Your task to perform on an android device: open chrome privacy settings Image 0: 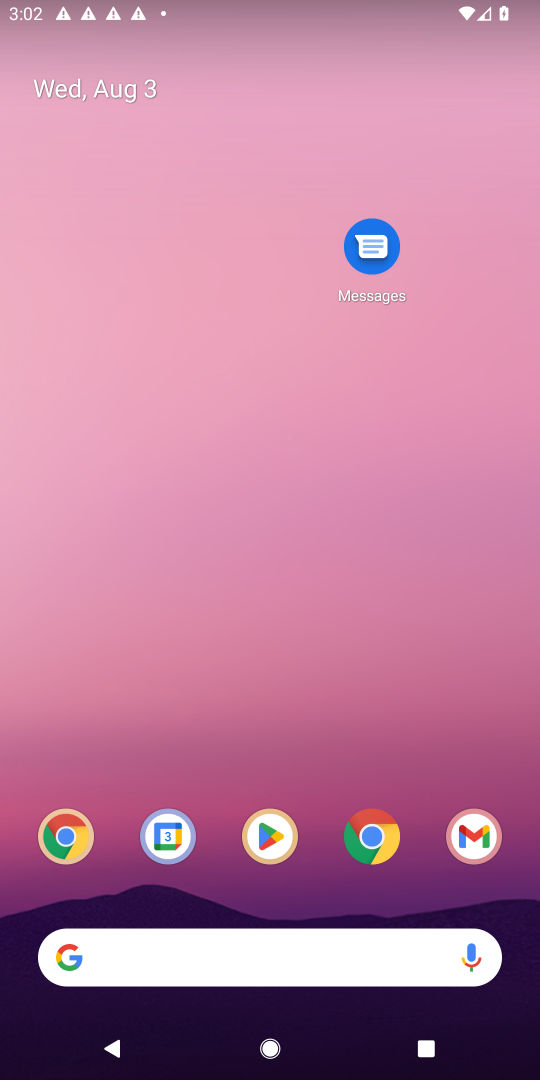
Step 0: click (391, 856)
Your task to perform on an android device: open chrome privacy settings Image 1: 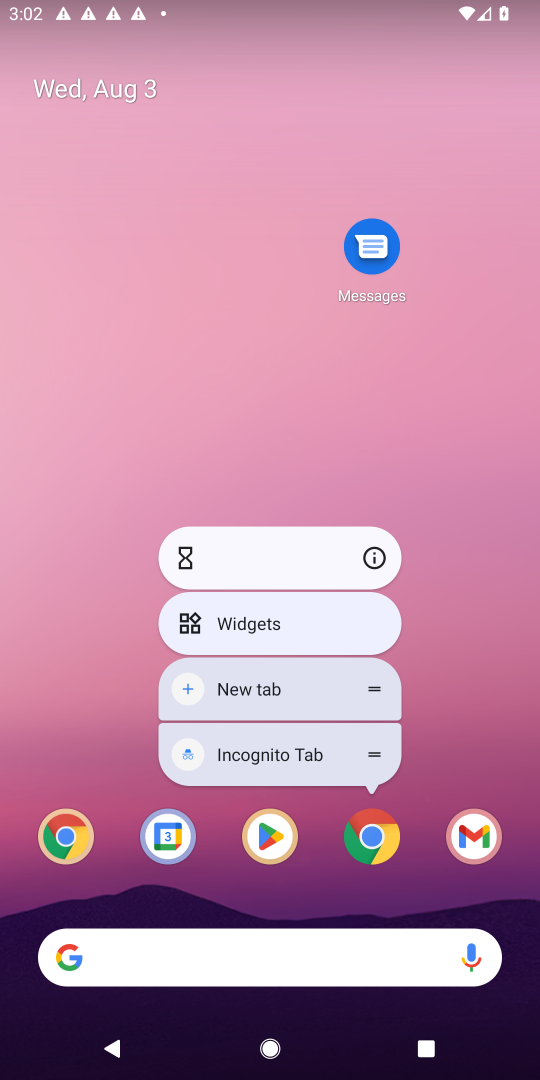
Step 1: click (377, 848)
Your task to perform on an android device: open chrome privacy settings Image 2: 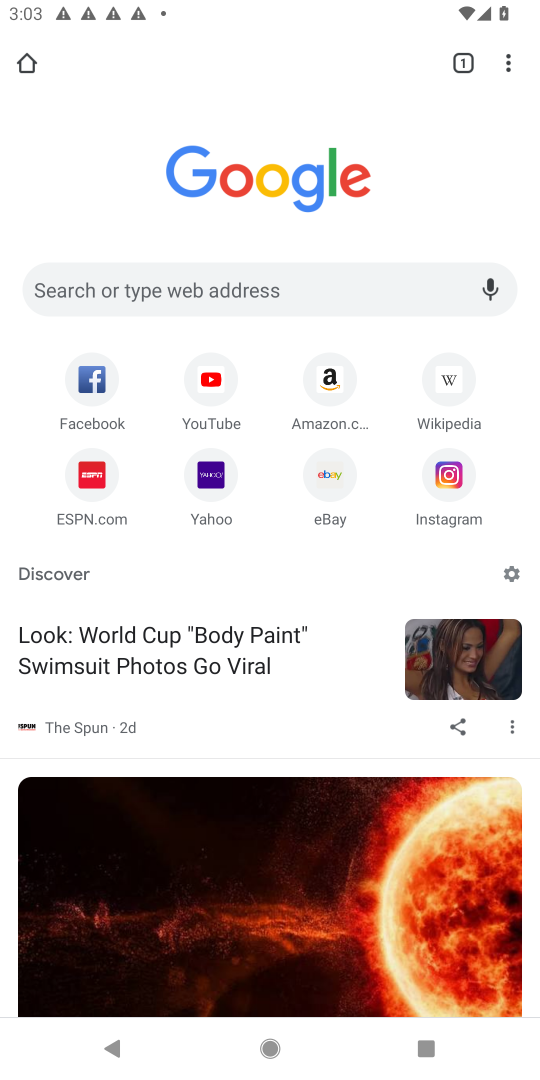
Step 2: click (511, 62)
Your task to perform on an android device: open chrome privacy settings Image 3: 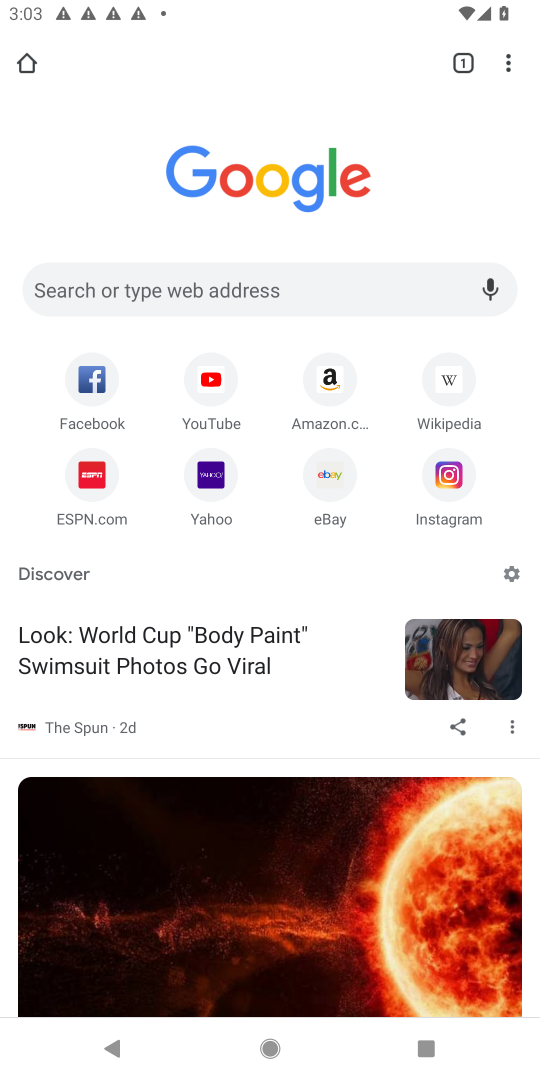
Step 3: click (514, 65)
Your task to perform on an android device: open chrome privacy settings Image 4: 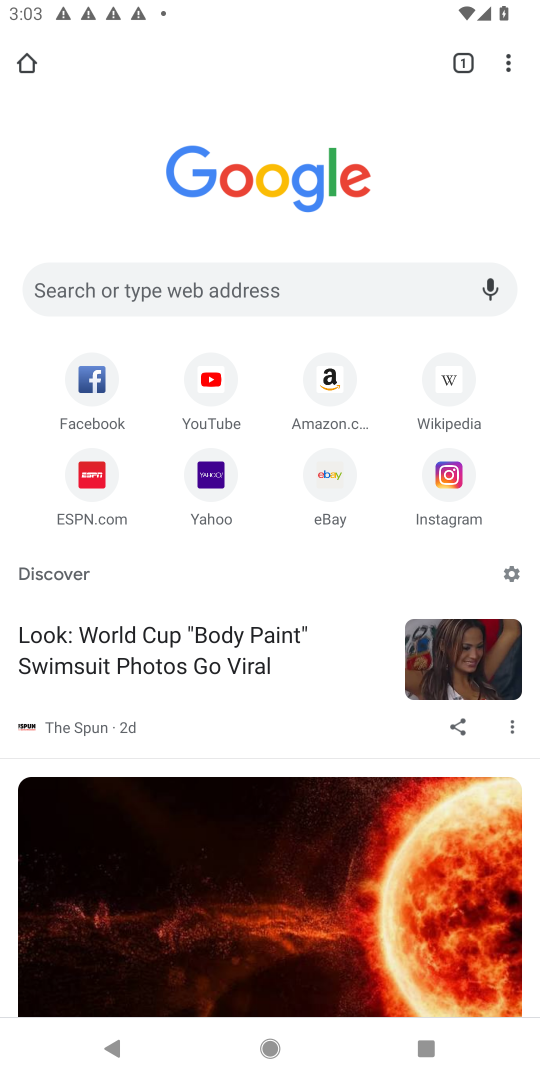
Step 4: click (507, 65)
Your task to perform on an android device: open chrome privacy settings Image 5: 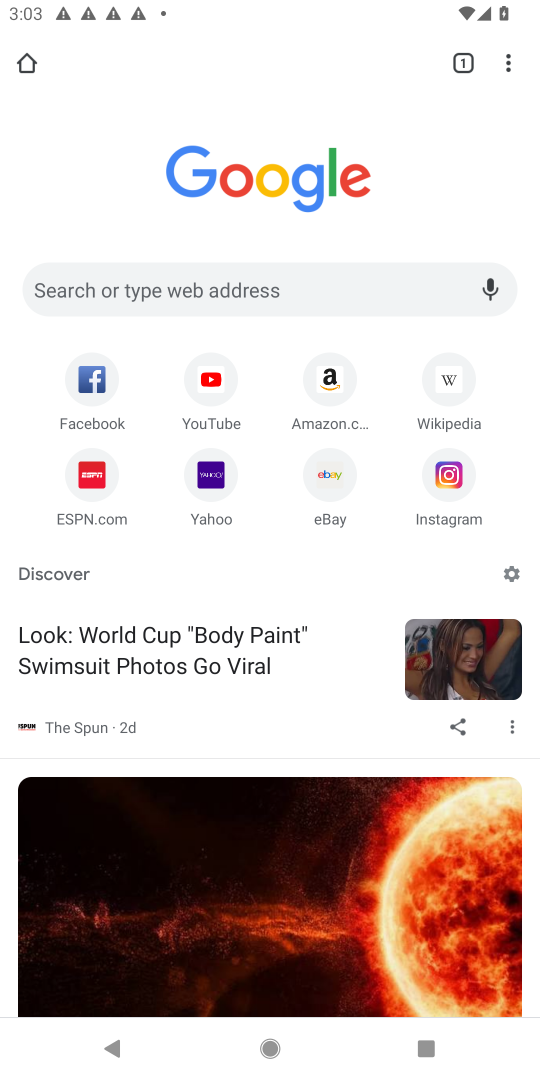
Step 5: task complete